Your task to perform on an android device: Open Youtube and go to "Your channel" Image 0: 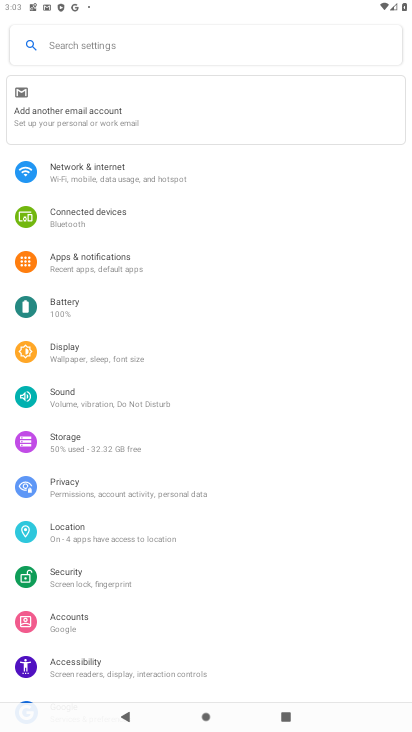
Step 0: task complete